Your task to perform on an android device: open app "Contacts" Image 0: 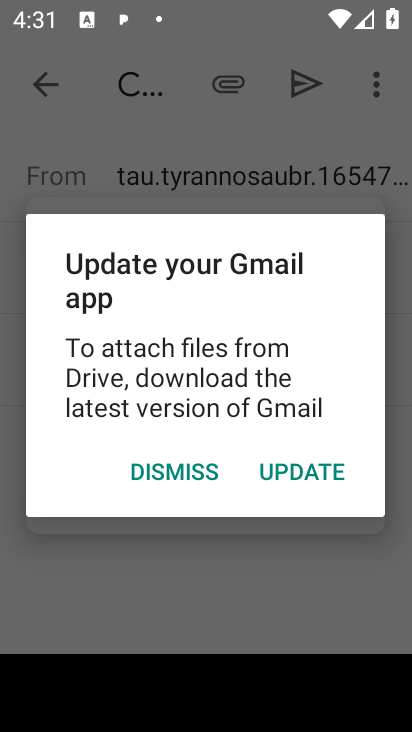
Step 0: press home button
Your task to perform on an android device: open app "Contacts" Image 1: 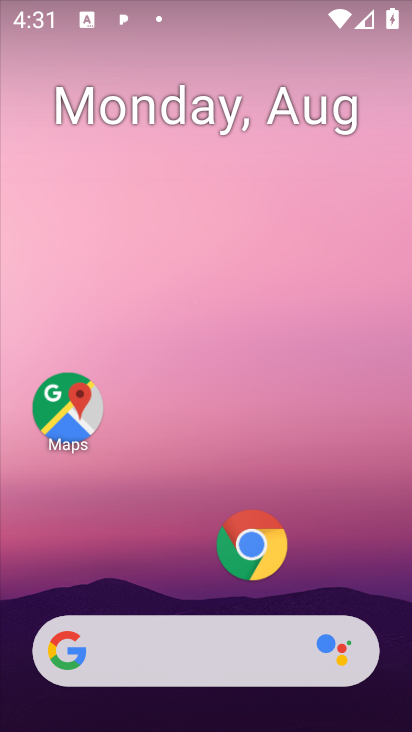
Step 1: drag from (136, 593) to (227, 58)
Your task to perform on an android device: open app "Contacts" Image 2: 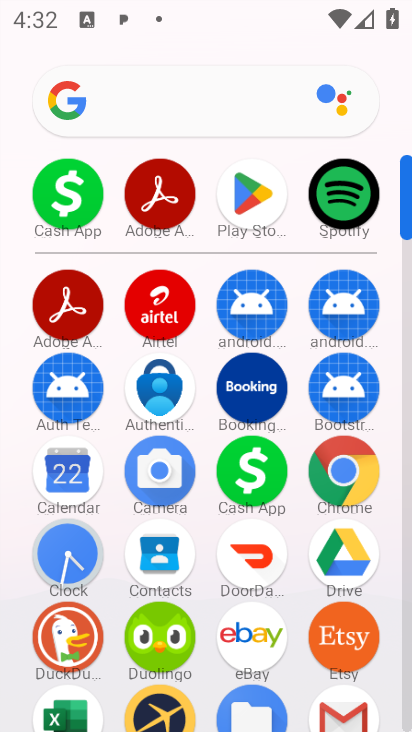
Step 2: click (148, 556)
Your task to perform on an android device: open app "Contacts" Image 3: 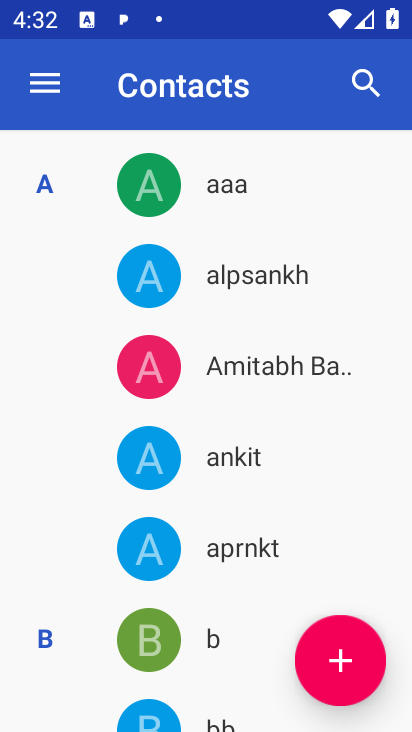
Step 3: task complete